Your task to perform on an android device: Go to Maps Image 0: 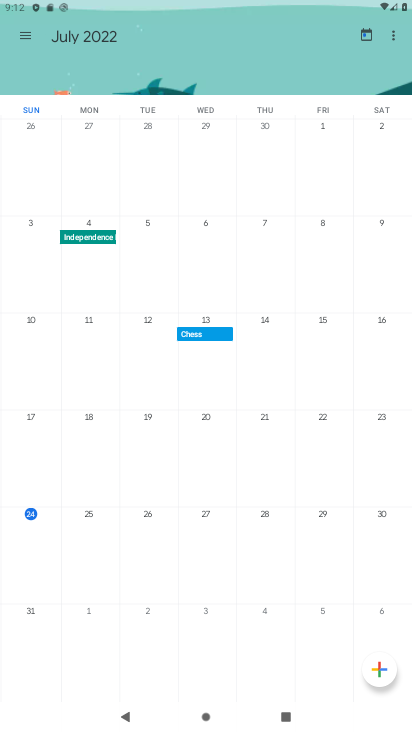
Step 0: task complete